Your task to perform on an android device: Go to notification settings Image 0: 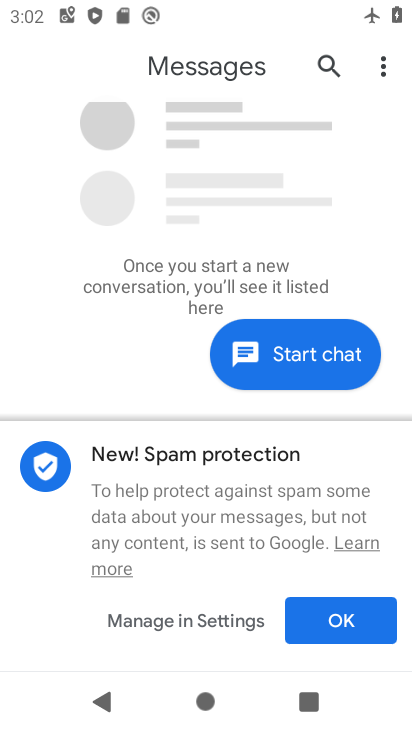
Step 0: press home button
Your task to perform on an android device: Go to notification settings Image 1: 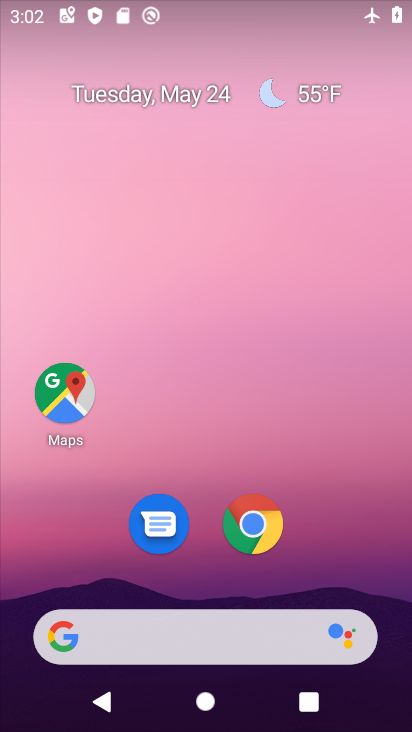
Step 1: drag from (272, 461) to (287, 23)
Your task to perform on an android device: Go to notification settings Image 2: 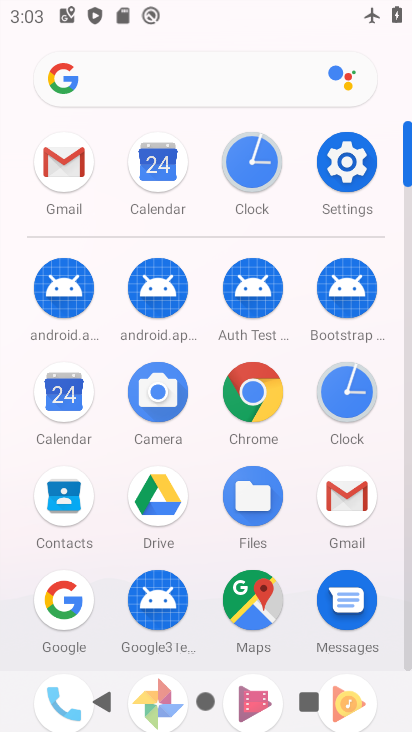
Step 2: click (335, 155)
Your task to perform on an android device: Go to notification settings Image 3: 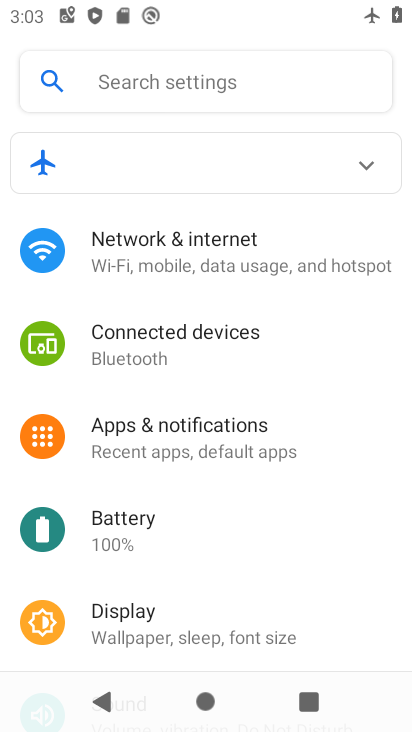
Step 3: click (263, 420)
Your task to perform on an android device: Go to notification settings Image 4: 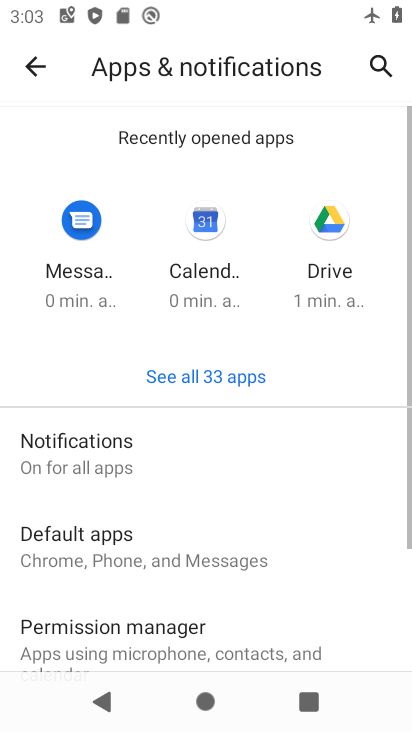
Step 4: click (197, 453)
Your task to perform on an android device: Go to notification settings Image 5: 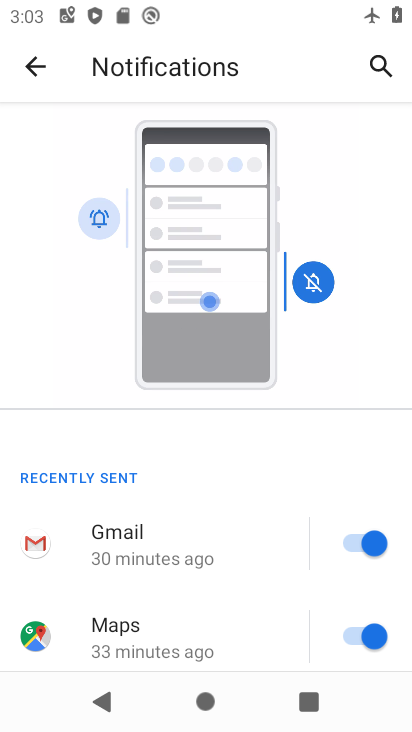
Step 5: task complete